Your task to perform on an android device: turn on location history Image 0: 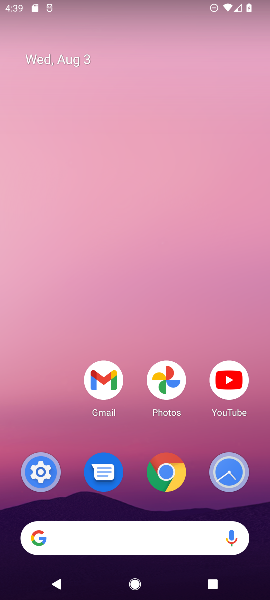
Step 0: drag from (204, 473) to (104, 62)
Your task to perform on an android device: turn on location history Image 1: 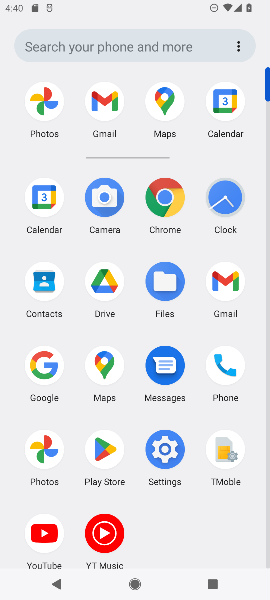
Step 1: click (181, 456)
Your task to perform on an android device: turn on location history Image 2: 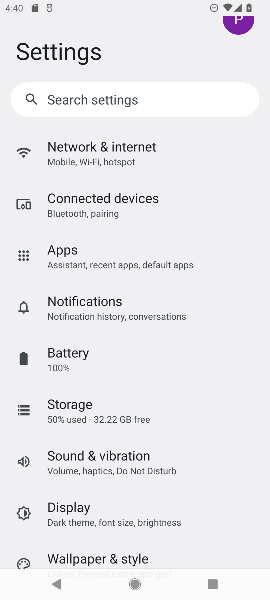
Step 2: drag from (87, 478) to (120, 147)
Your task to perform on an android device: turn on location history Image 3: 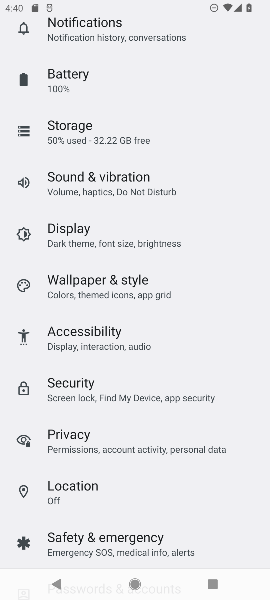
Step 3: click (80, 487)
Your task to perform on an android device: turn on location history Image 4: 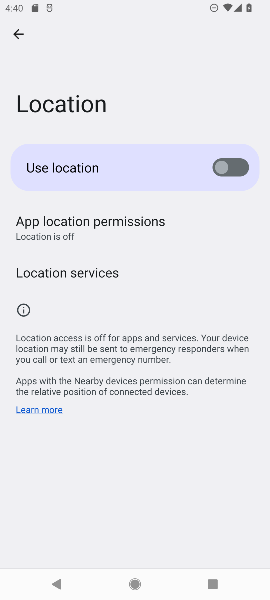
Step 4: click (92, 279)
Your task to perform on an android device: turn on location history Image 5: 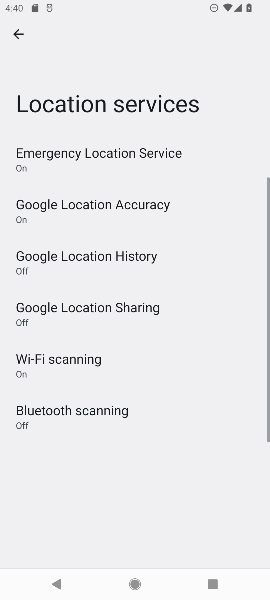
Step 5: click (125, 262)
Your task to perform on an android device: turn on location history Image 6: 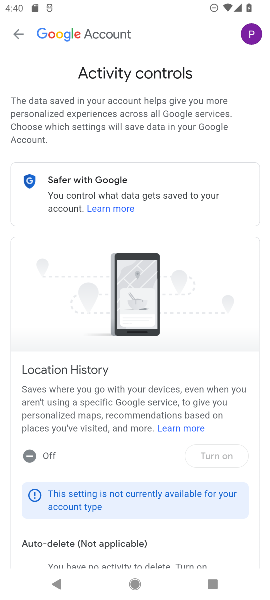
Step 6: task complete